Your task to perform on an android device: Go to accessibility settings Image 0: 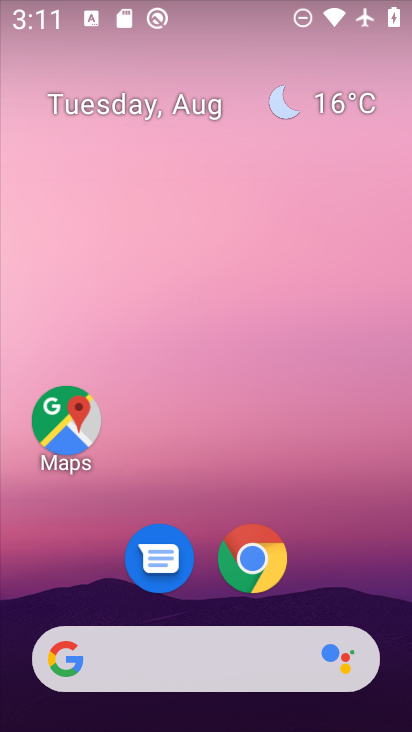
Step 0: drag from (219, 319) to (223, 87)
Your task to perform on an android device: Go to accessibility settings Image 1: 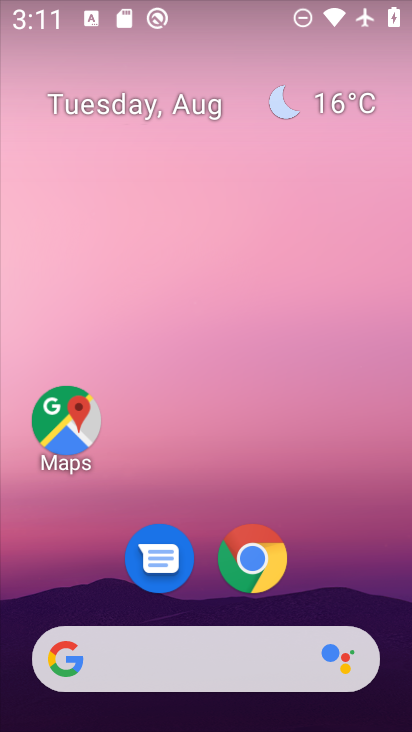
Step 1: drag from (221, 402) to (221, 1)
Your task to perform on an android device: Go to accessibility settings Image 2: 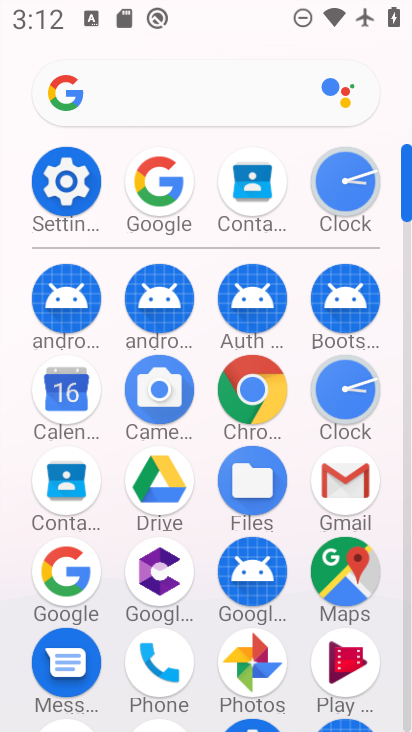
Step 2: click (80, 197)
Your task to perform on an android device: Go to accessibility settings Image 3: 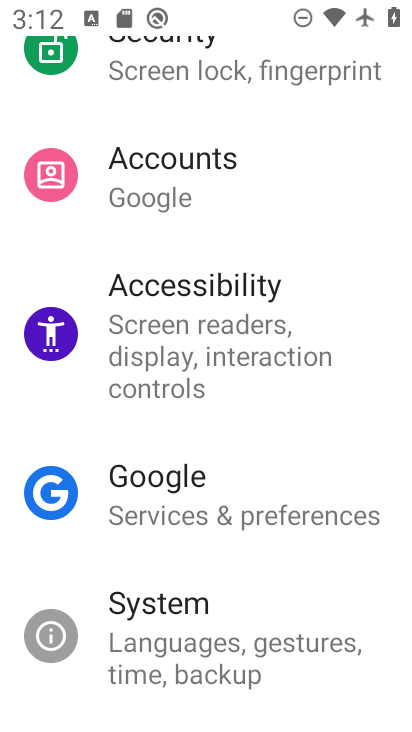
Step 3: click (176, 338)
Your task to perform on an android device: Go to accessibility settings Image 4: 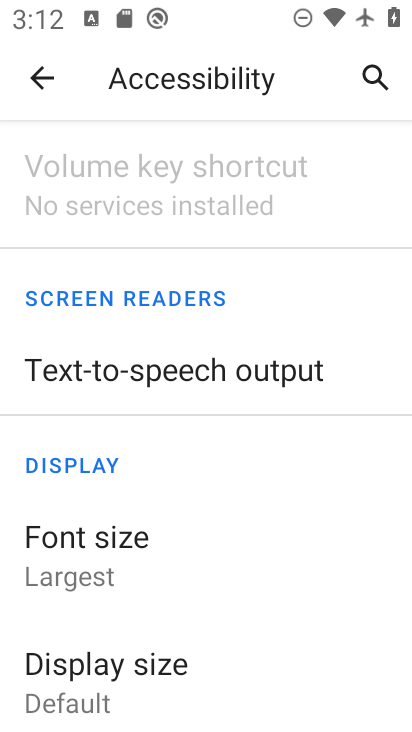
Step 4: task complete